Your task to perform on an android device: turn off improve location accuracy Image 0: 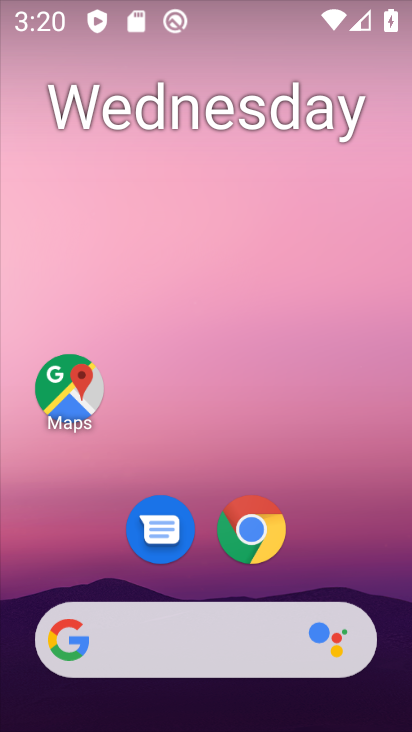
Step 0: drag from (92, 598) to (187, 142)
Your task to perform on an android device: turn off improve location accuracy Image 1: 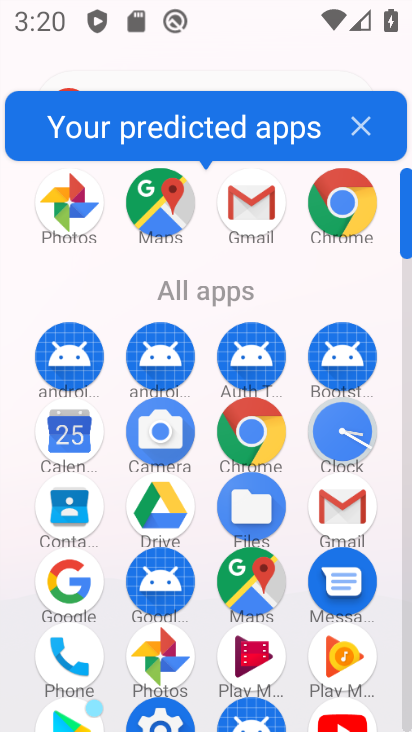
Step 1: drag from (168, 608) to (268, 328)
Your task to perform on an android device: turn off improve location accuracy Image 2: 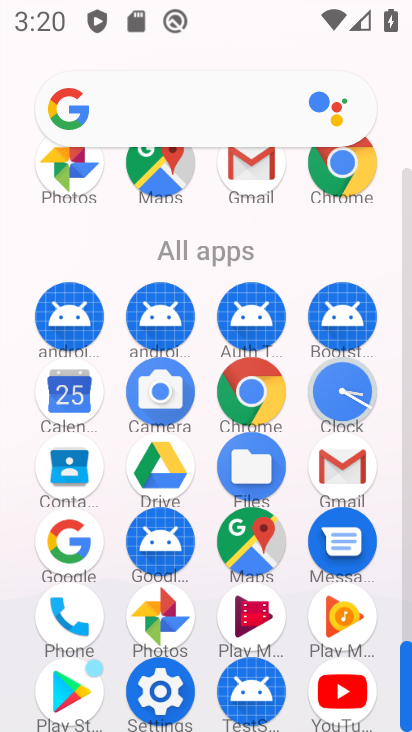
Step 2: click (173, 684)
Your task to perform on an android device: turn off improve location accuracy Image 3: 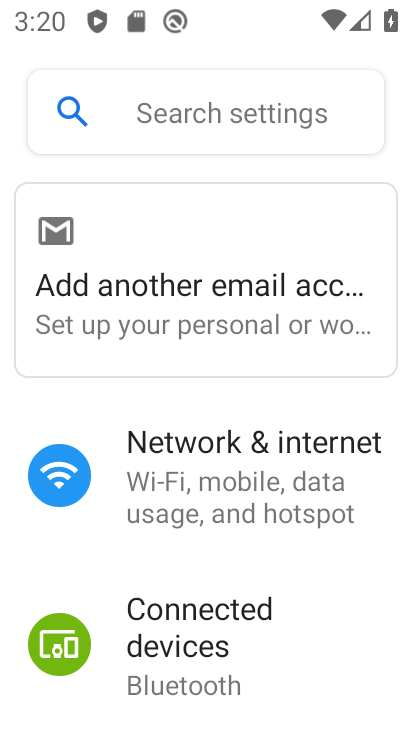
Step 3: drag from (212, 603) to (341, 187)
Your task to perform on an android device: turn off improve location accuracy Image 4: 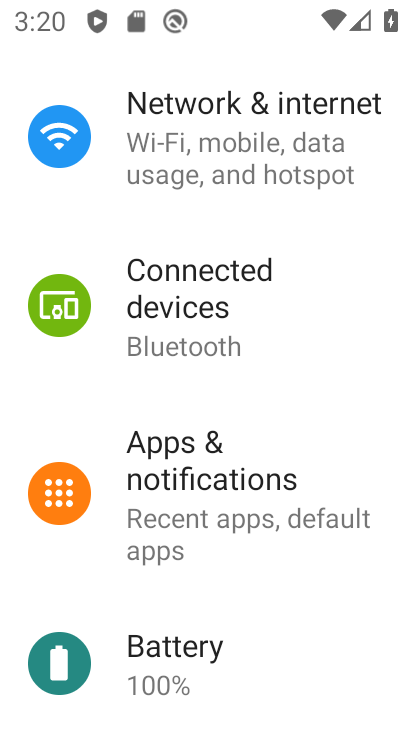
Step 4: drag from (274, 680) to (338, 375)
Your task to perform on an android device: turn off improve location accuracy Image 5: 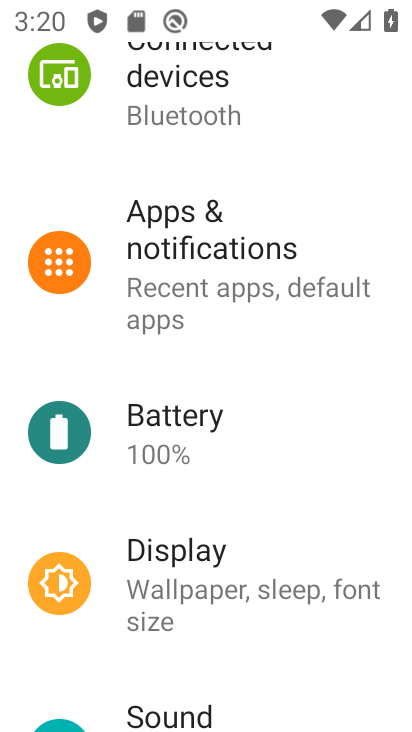
Step 5: drag from (242, 613) to (313, 263)
Your task to perform on an android device: turn off improve location accuracy Image 6: 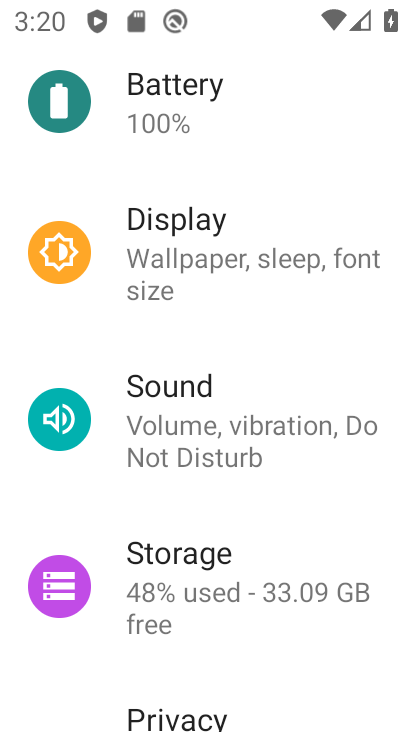
Step 6: drag from (191, 642) to (272, 261)
Your task to perform on an android device: turn off improve location accuracy Image 7: 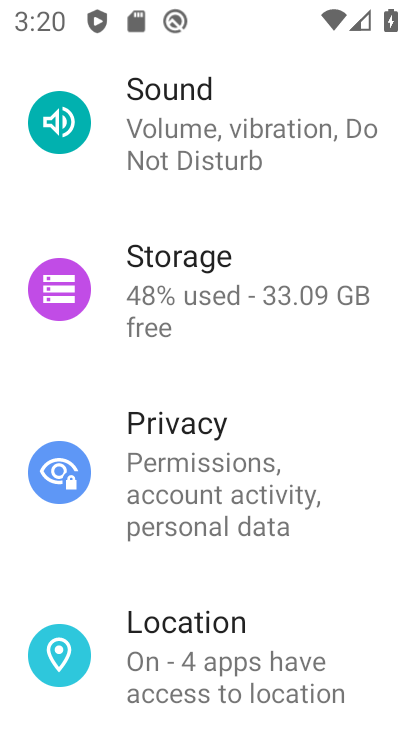
Step 7: click (170, 658)
Your task to perform on an android device: turn off improve location accuracy Image 8: 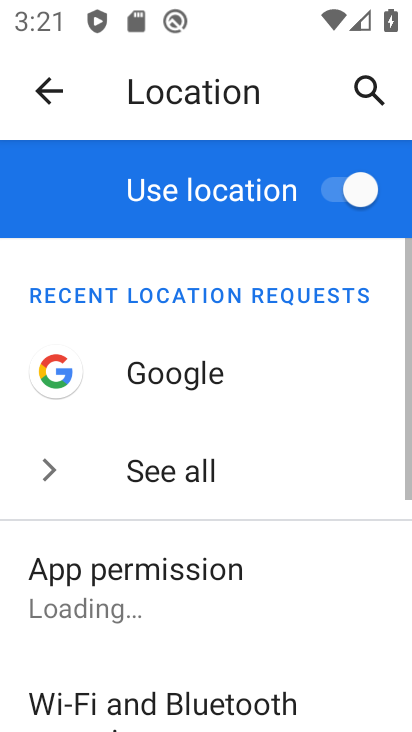
Step 8: drag from (169, 640) to (281, 273)
Your task to perform on an android device: turn off improve location accuracy Image 9: 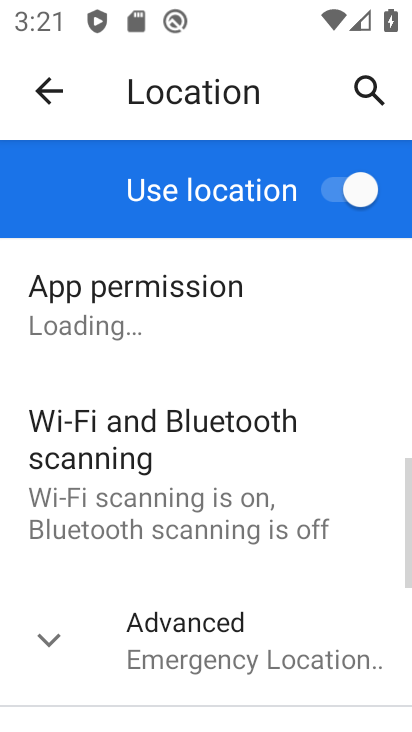
Step 9: click (239, 653)
Your task to perform on an android device: turn off improve location accuracy Image 10: 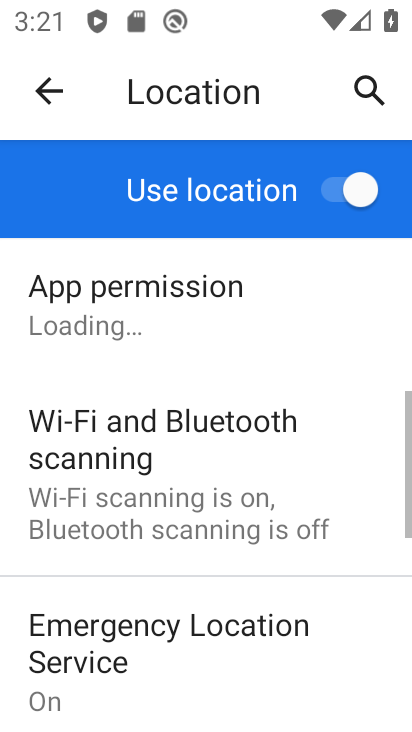
Step 10: drag from (144, 669) to (280, 176)
Your task to perform on an android device: turn off improve location accuracy Image 11: 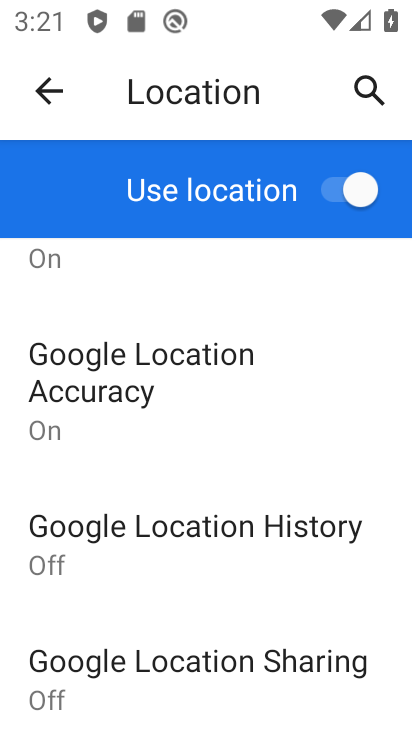
Step 11: click (215, 674)
Your task to perform on an android device: turn off improve location accuracy Image 12: 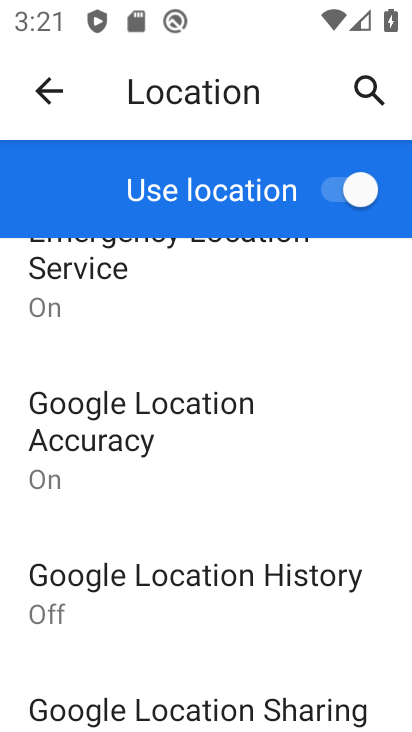
Step 12: click (168, 463)
Your task to perform on an android device: turn off improve location accuracy Image 13: 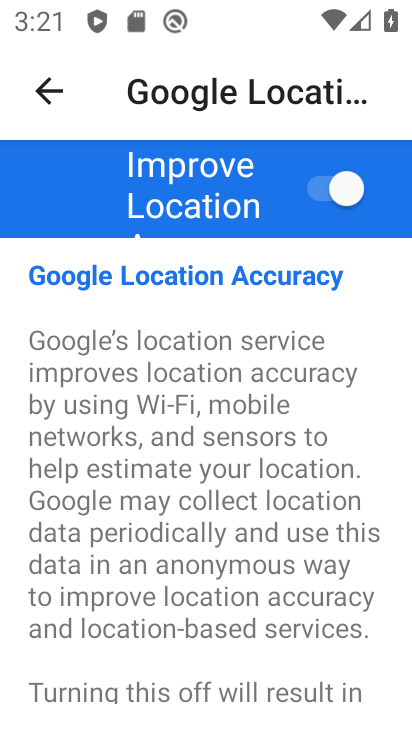
Step 13: click (297, 188)
Your task to perform on an android device: turn off improve location accuracy Image 14: 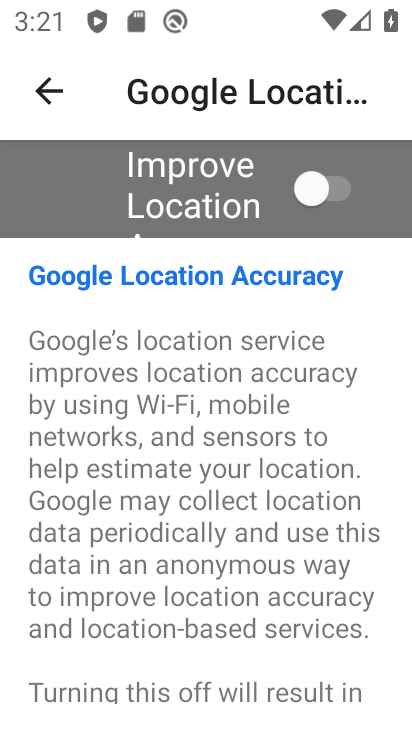
Step 14: task complete